Your task to perform on an android device: Is it going to rain today? Image 0: 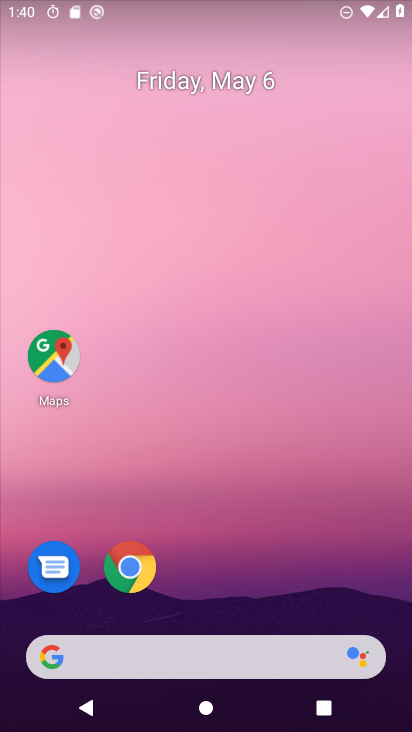
Step 0: click (161, 655)
Your task to perform on an android device: Is it going to rain today? Image 1: 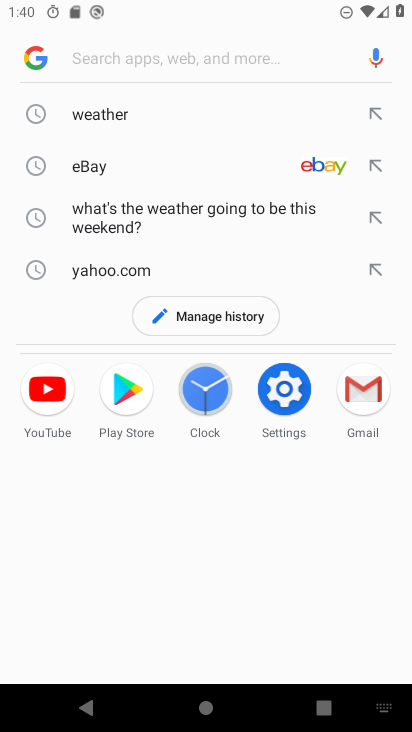
Step 1: click (88, 114)
Your task to perform on an android device: Is it going to rain today? Image 2: 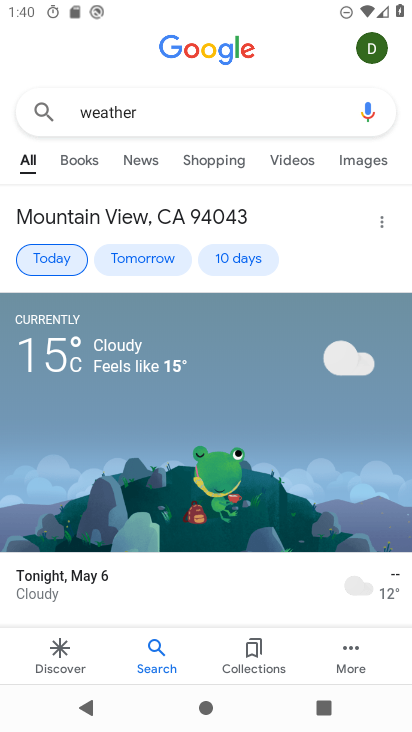
Step 2: task complete